Your task to perform on an android device: Open Google Chrome Image 0: 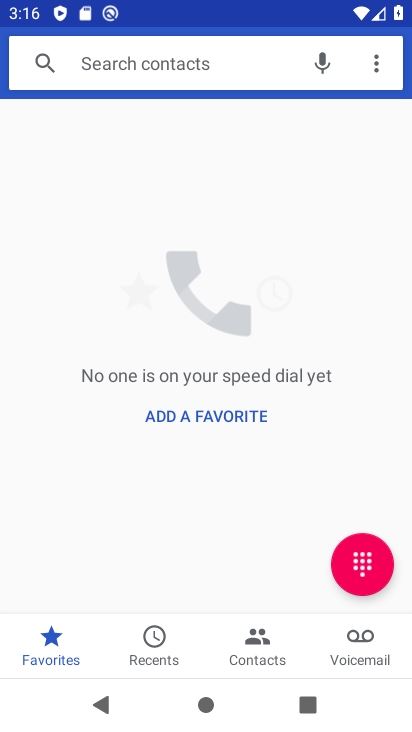
Step 0: press home button
Your task to perform on an android device: Open Google Chrome Image 1: 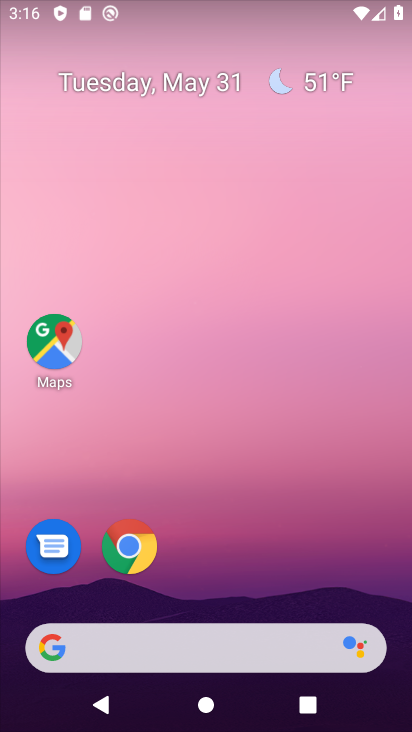
Step 1: drag from (208, 603) to (170, 266)
Your task to perform on an android device: Open Google Chrome Image 2: 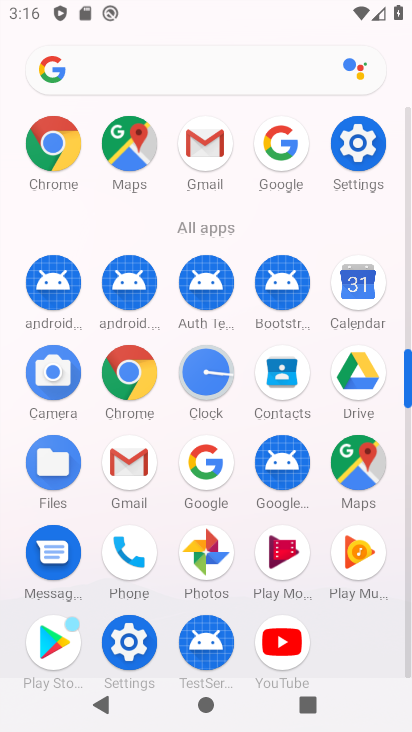
Step 2: click (52, 184)
Your task to perform on an android device: Open Google Chrome Image 3: 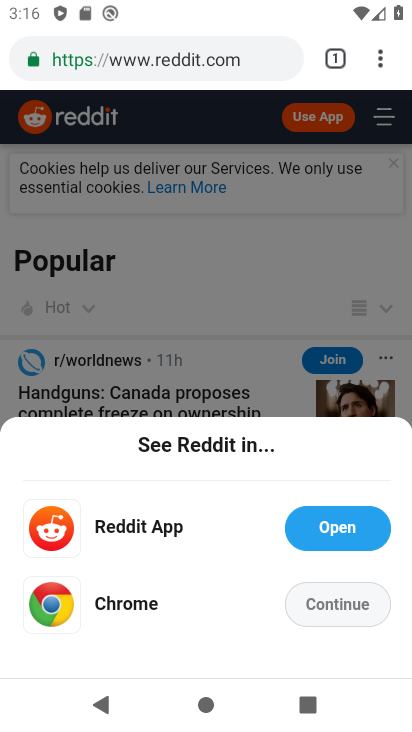
Step 3: click (323, 589)
Your task to perform on an android device: Open Google Chrome Image 4: 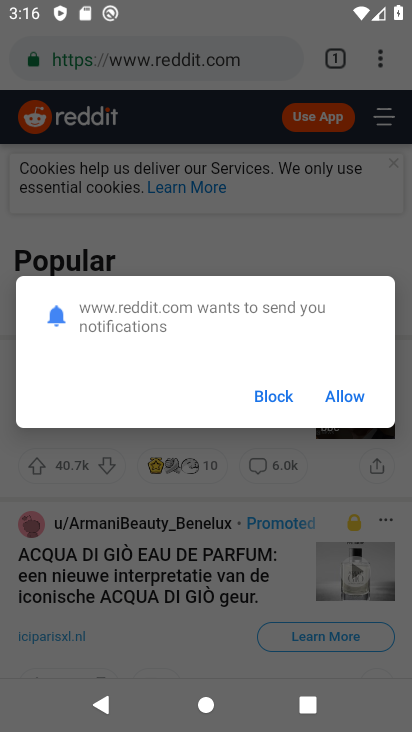
Step 4: task complete